Your task to perform on an android device: open wifi settings Image 0: 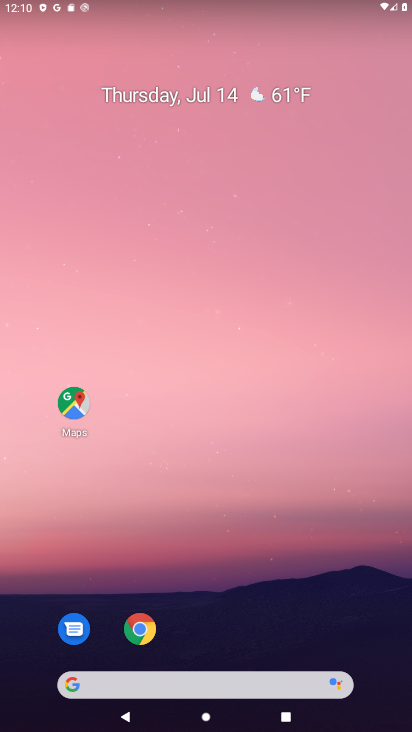
Step 0: drag from (204, 3) to (214, 689)
Your task to perform on an android device: open wifi settings Image 1: 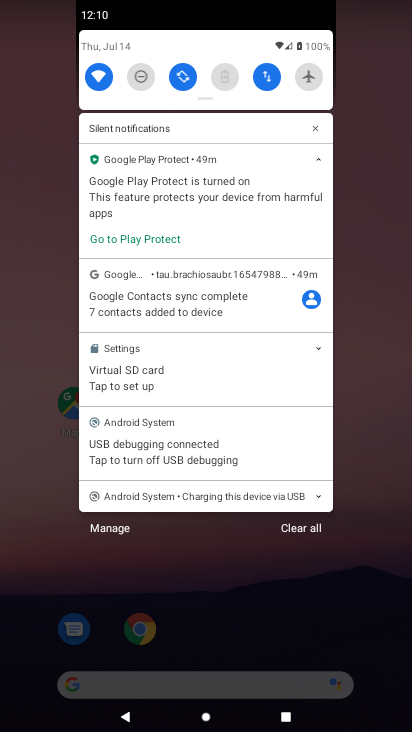
Step 1: click (94, 80)
Your task to perform on an android device: open wifi settings Image 2: 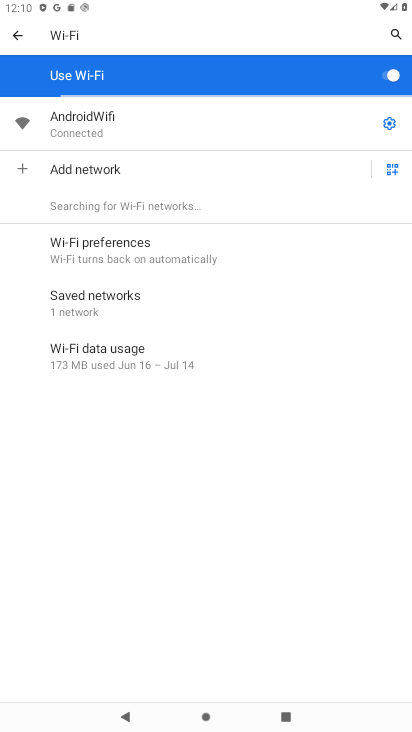
Step 2: task complete